Your task to perform on an android device: open app "Airtel Thanks" (install if not already installed), go to login, and select forgot password Image 0: 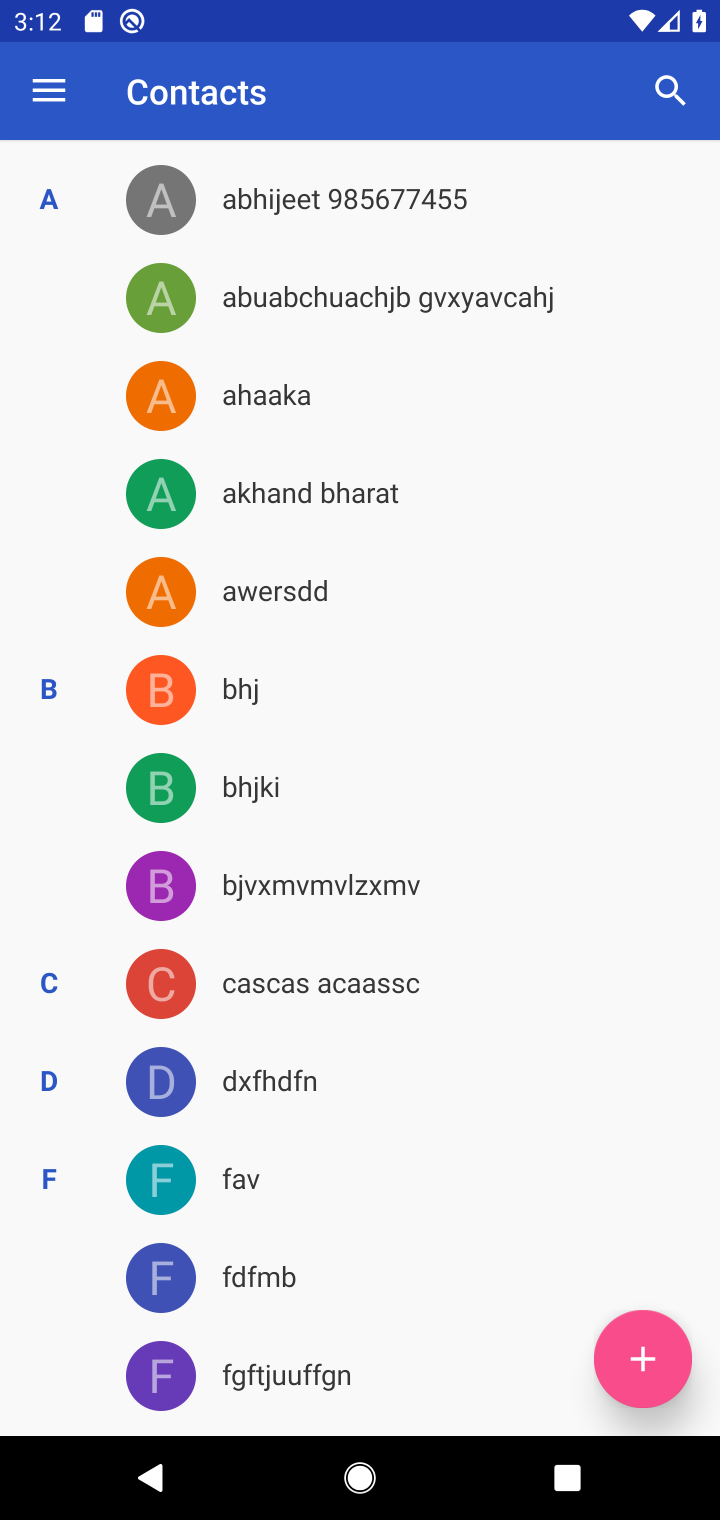
Step 0: press home button
Your task to perform on an android device: open app "Airtel Thanks" (install if not already installed), go to login, and select forgot password Image 1: 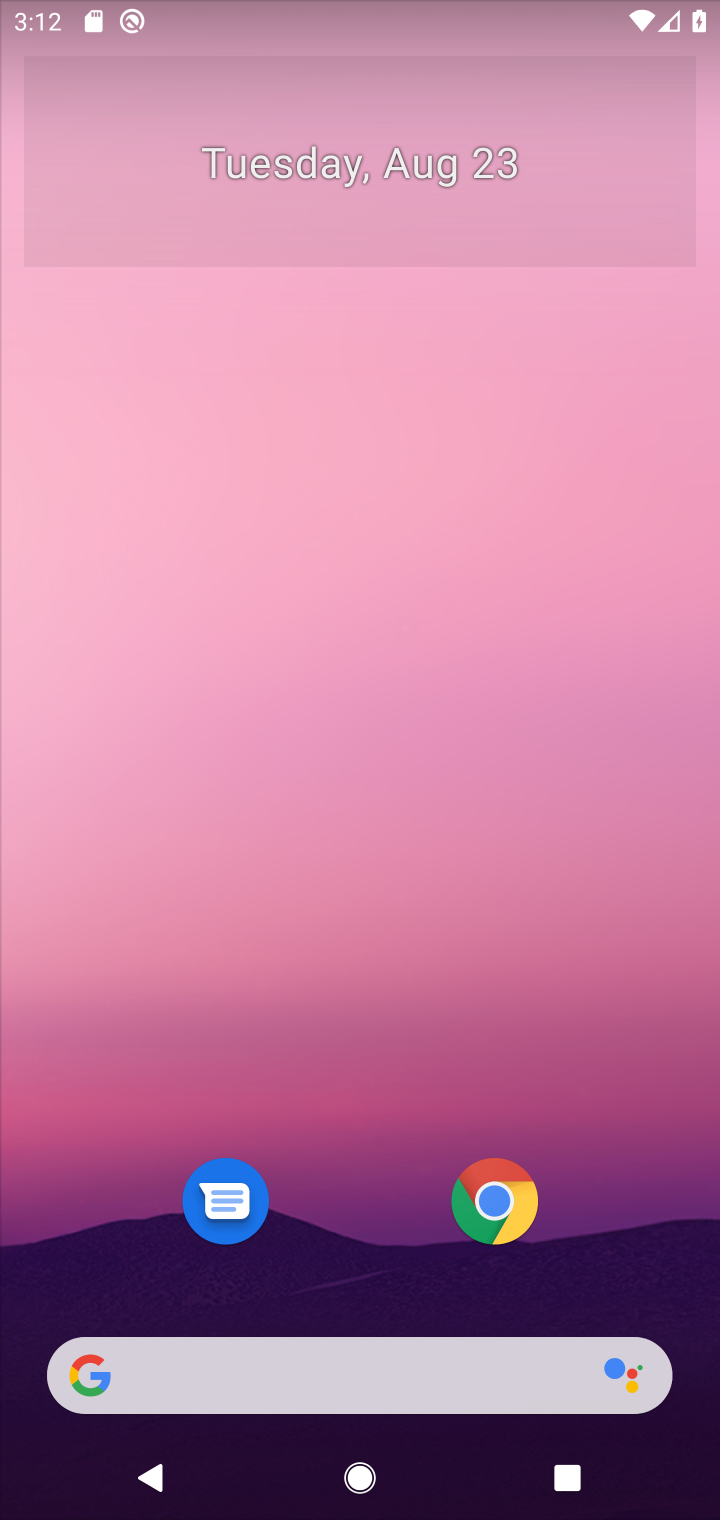
Step 1: drag from (682, 1294) to (500, 157)
Your task to perform on an android device: open app "Airtel Thanks" (install if not already installed), go to login, and select forgot password Image 2: 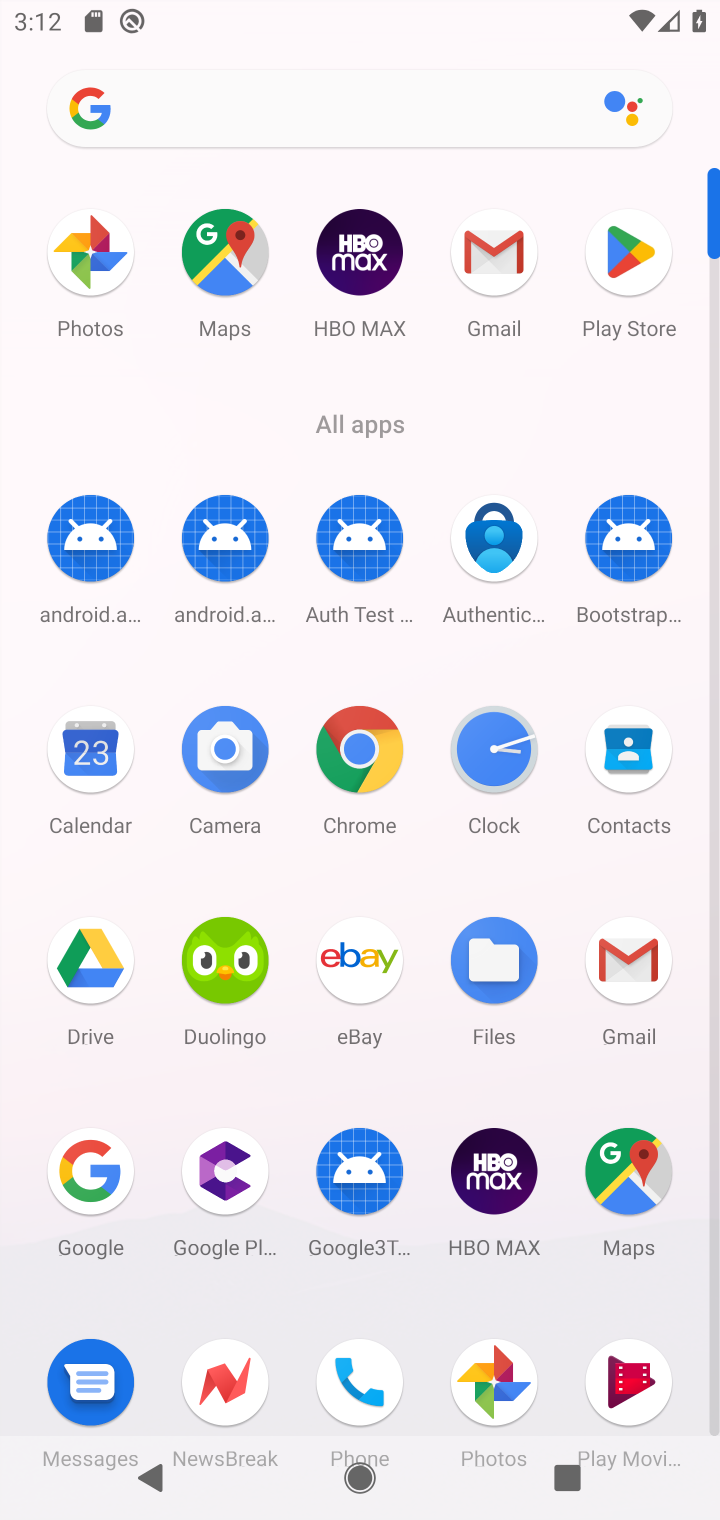
Step 2: click (715, 1391)
Your task to perform on an android device: open app "Airtel Thanks" (install if not already installed), go to login, and select forgot password Image 3: 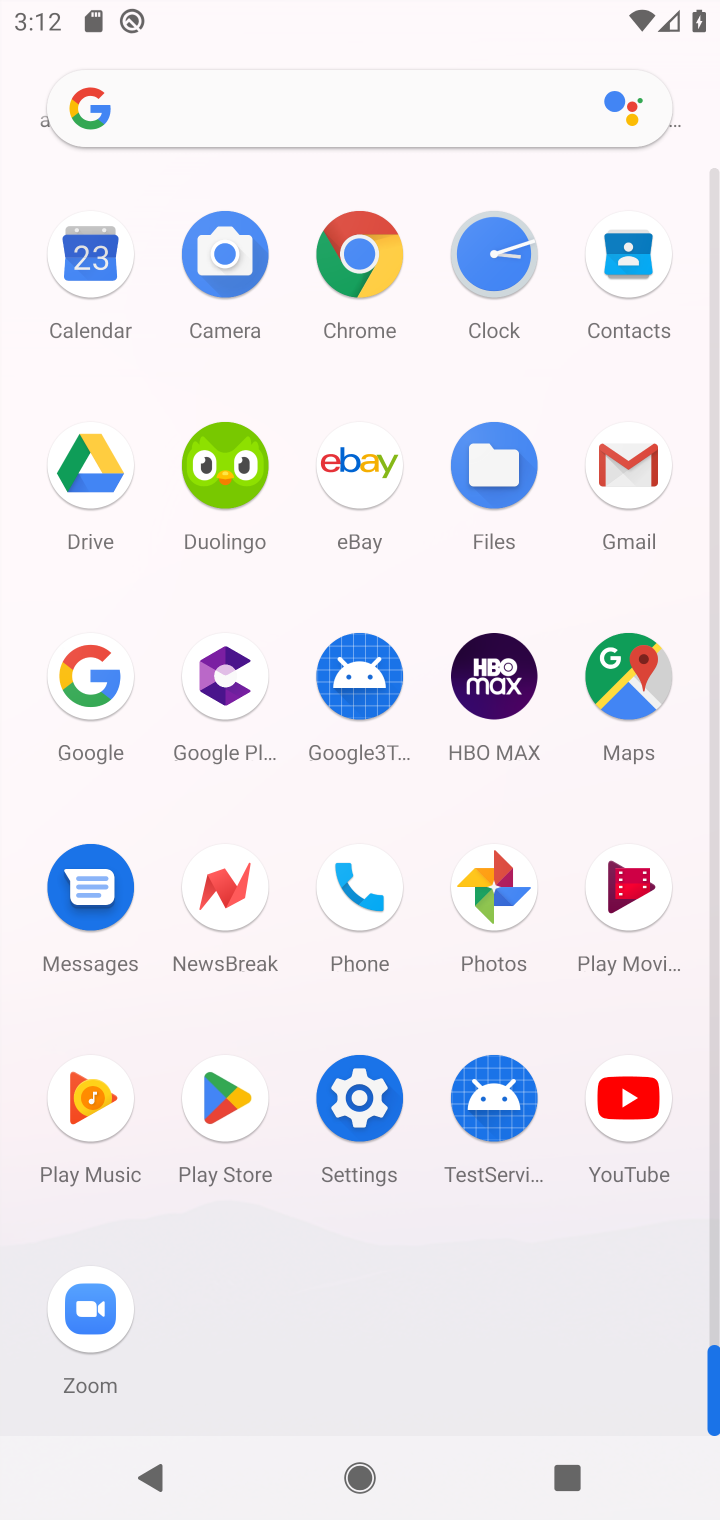
Step 3: click (220, 1097)
Your task to perform on an android device: open app "Airtel Thanks" (install if not already installed), go to login, and select forgot password Image 4: 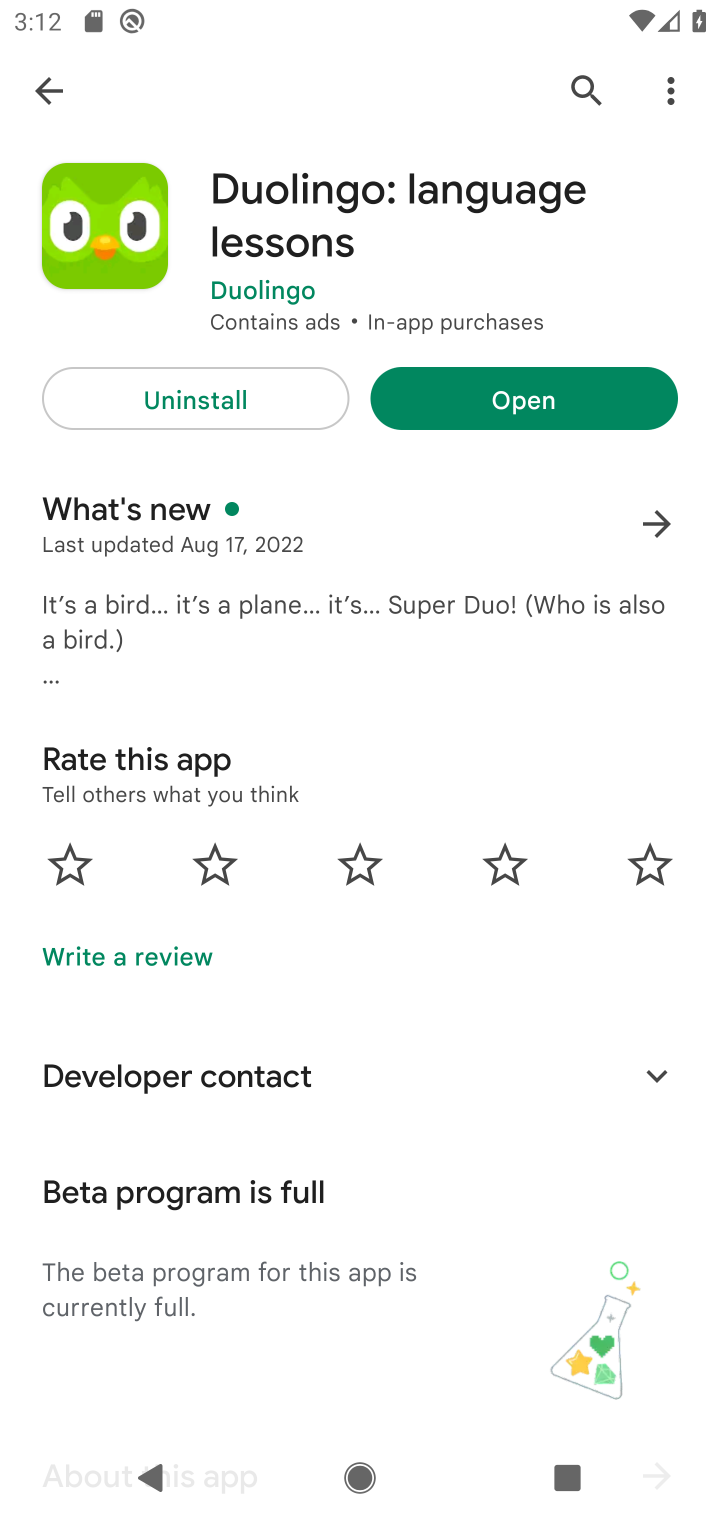
Step 4: click (568, 78)
Your task to perform on an android device: open app "Airtel Thanks" (install if not already installed), go to login, and select forgot password Image 5: 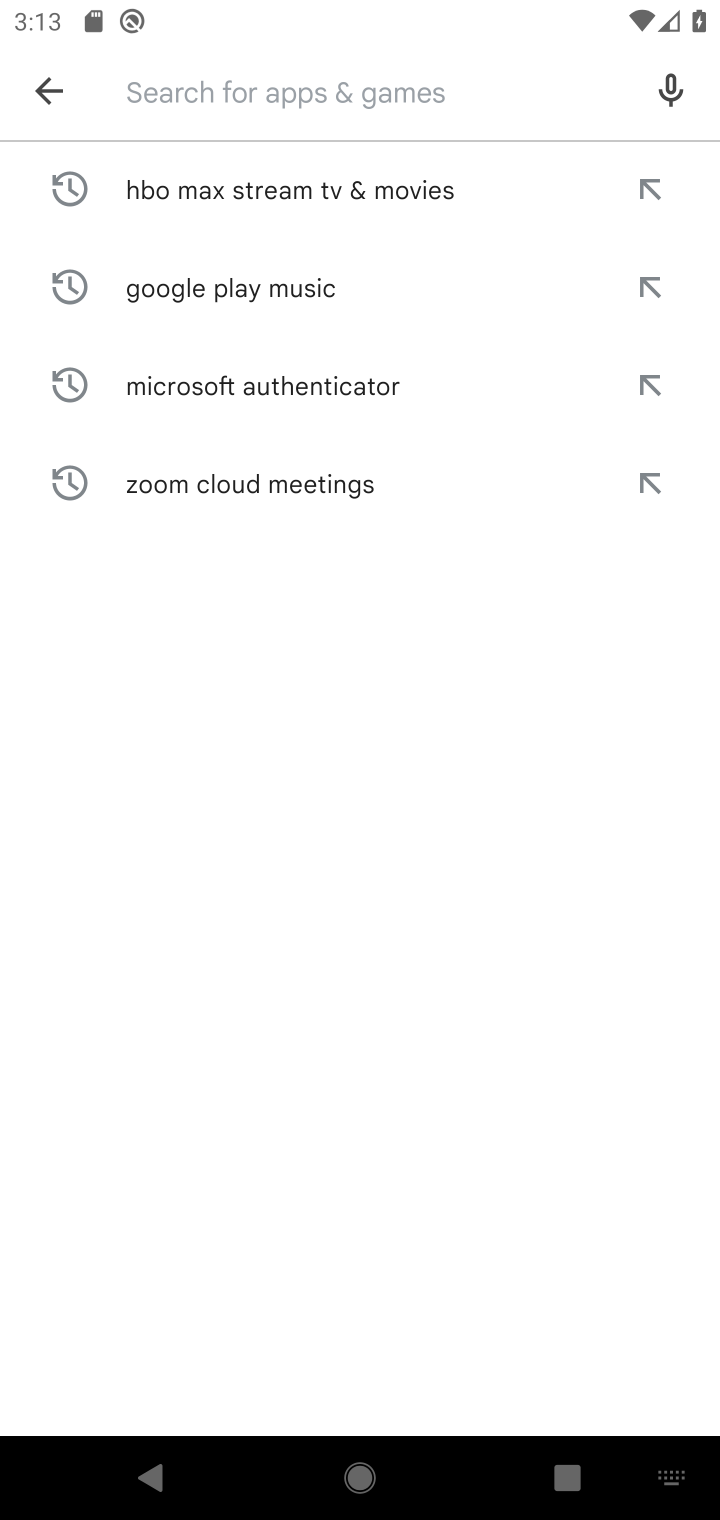
Step 5: type "Airtel Thanks"
Your task to perform on an android device: open app "Airtel Thanks" (install if not already installed), go to login, and select forgot password Image 6: 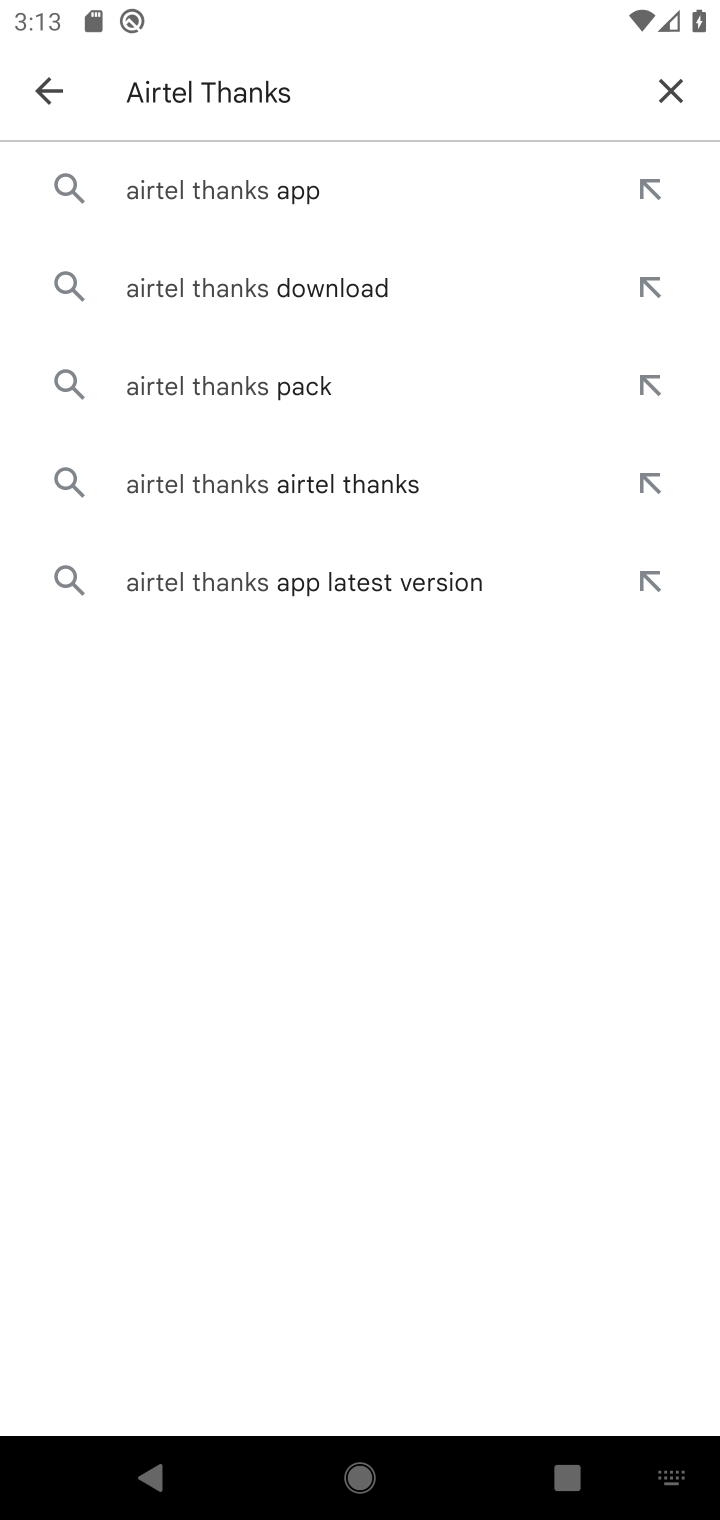
Step 6: click (204, 180)
Your task to perform on an android device: open app "Airtel Thanks" (install if not already installed), go to login, and select forgot password Image 7: 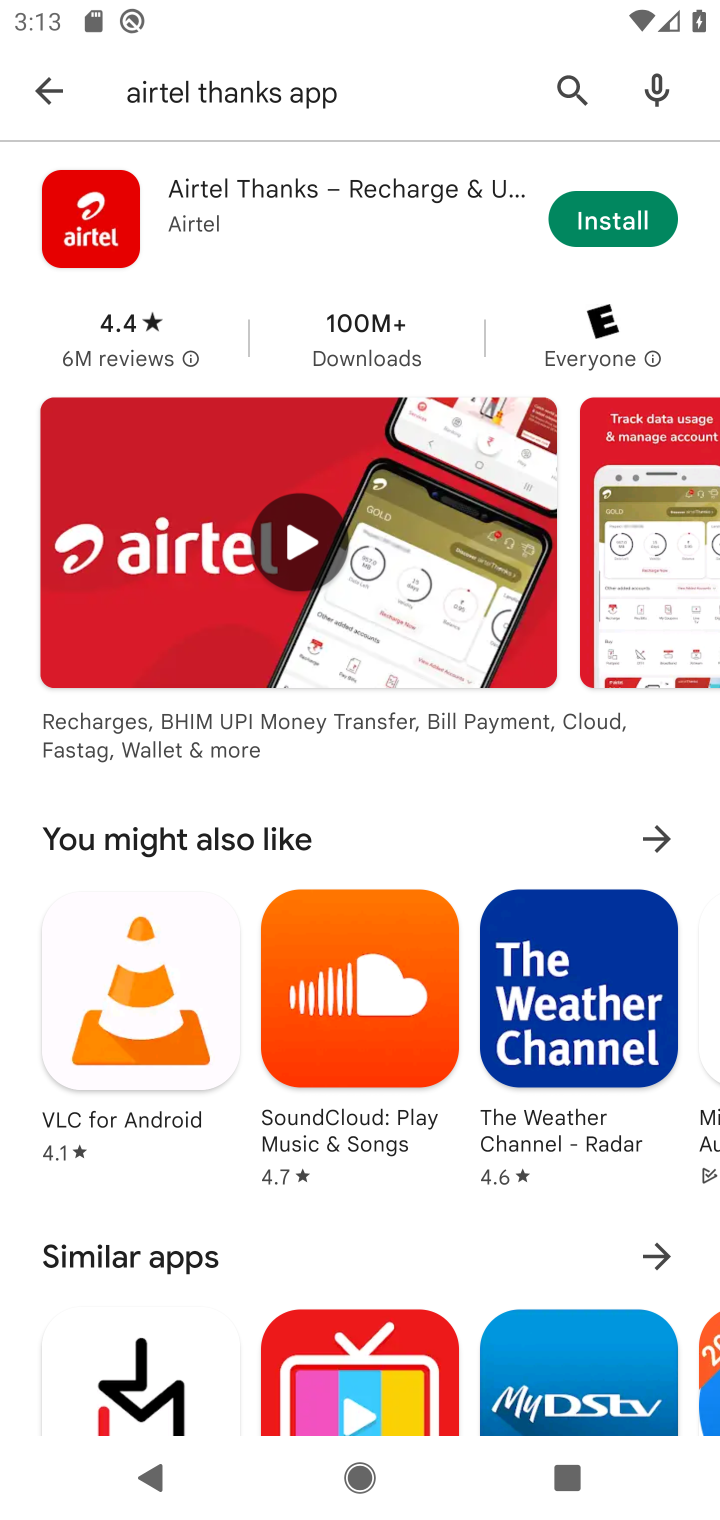
Step 7: click (604, 223)
Your task to perform on an android device: open app "Airtel Thanks" (install if not already installed), go to login, and select forgot password Image 8: 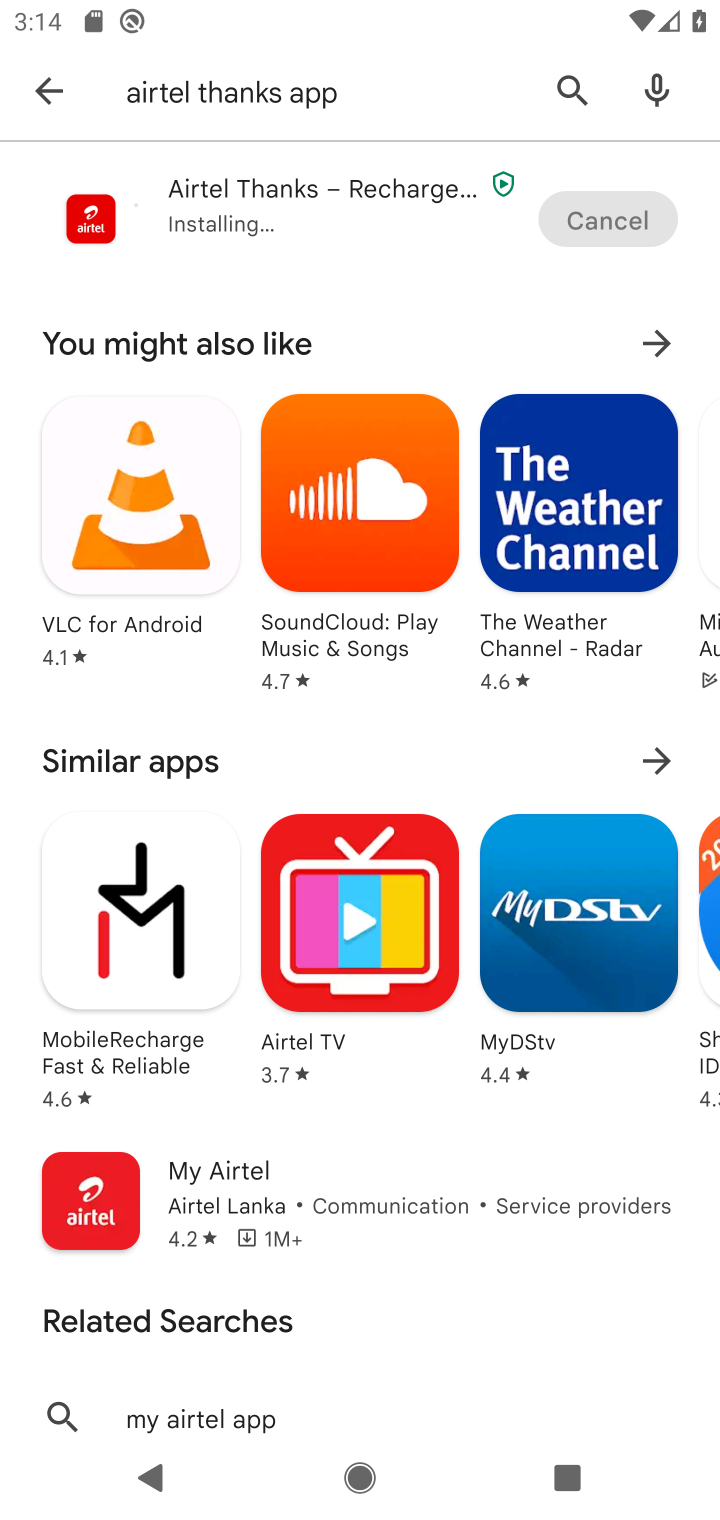
Step 8: click (223, 192)
Your task to perform on an android device: open app "Airtel Thanks" (install if not already installed), go to login, and select forgot password Image 9: 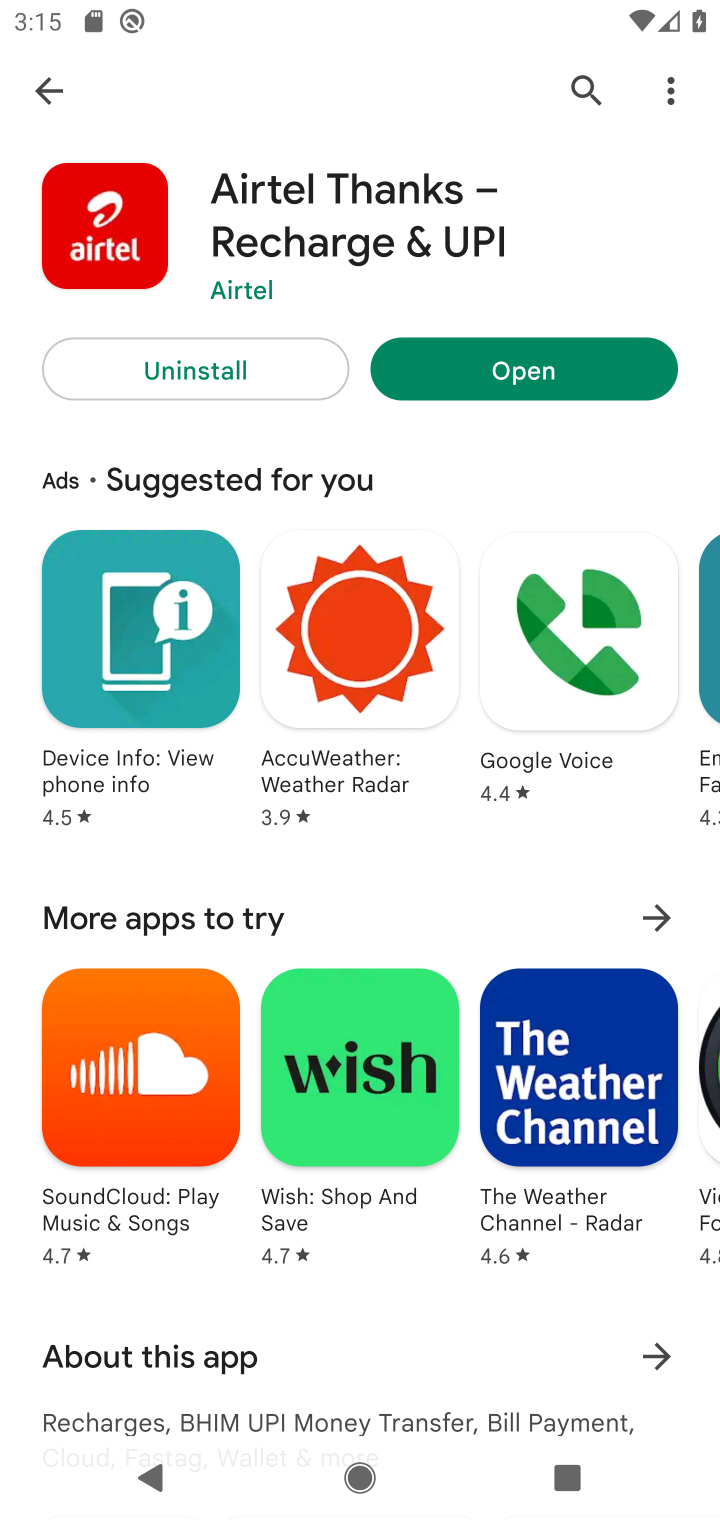
Step 9: click (526, 368)
Your task to perform on an android device: open app "Airtel Thanks" (install if not already installed), go to login, and select forgot password Image 10: 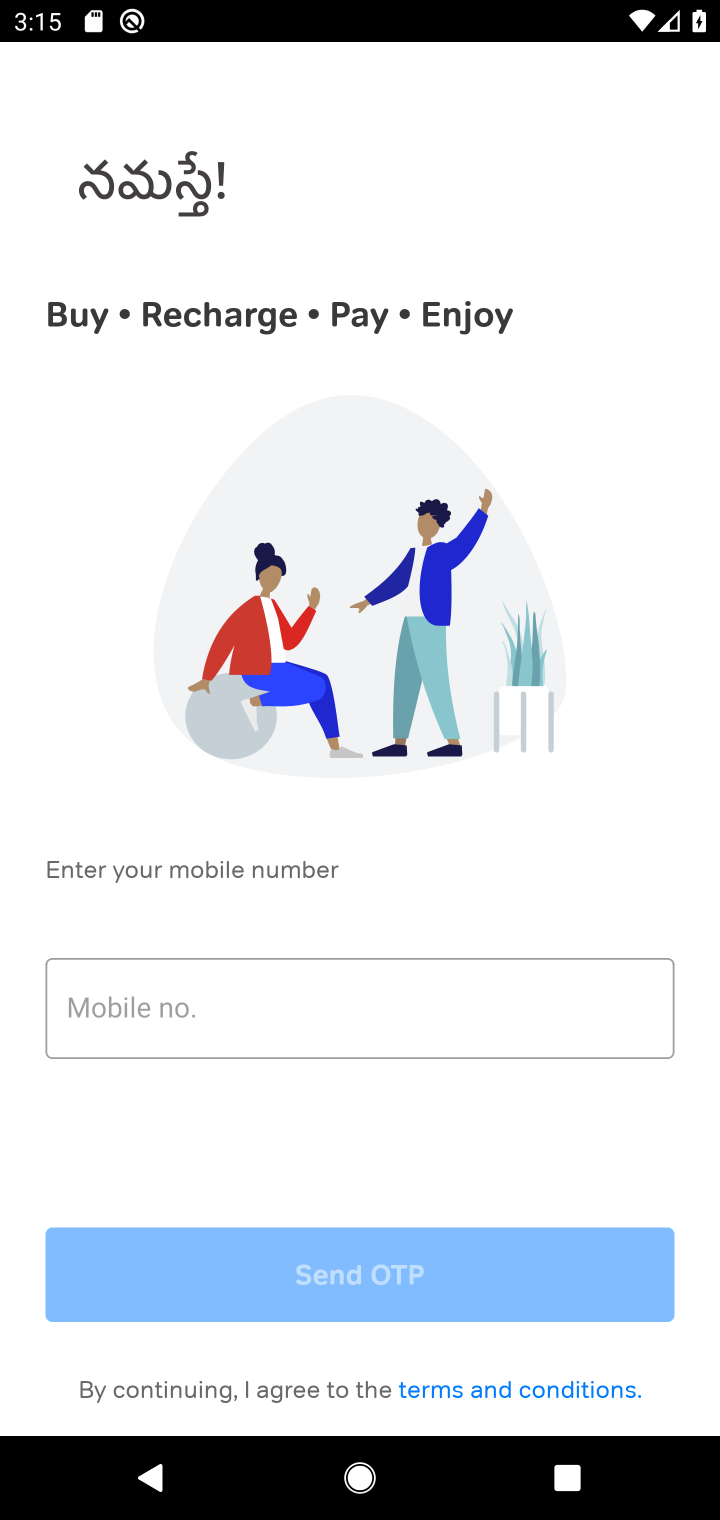
Step 10: task complete